Your task to perform on an android device: What is the news today? Image 0: 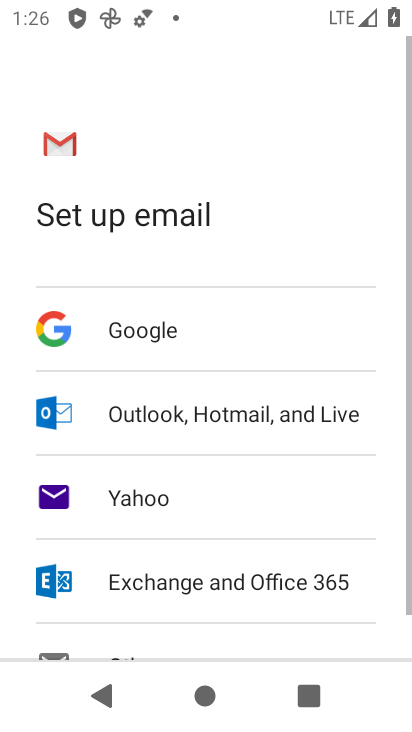
Step 0: press home button
Your task to perform on an android device: What is the news today? Image 1: 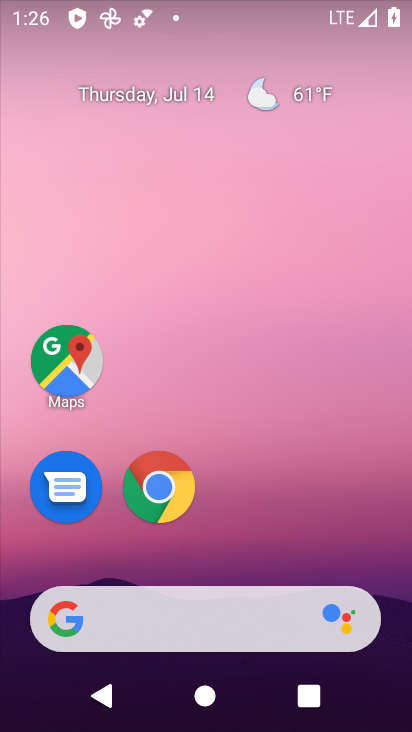
Step 1: task complete